Your task to perform on an android device: change timer sound Image 0: 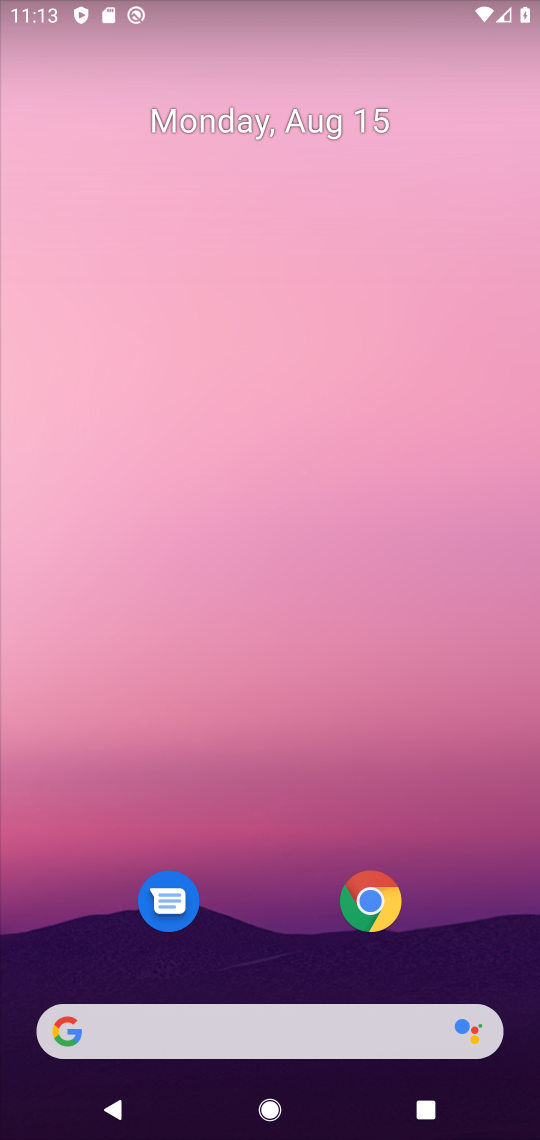
Step 0: drag from (419, 579) to (503, 3)
Your task to perform on an android device: change timer sound Image 1: 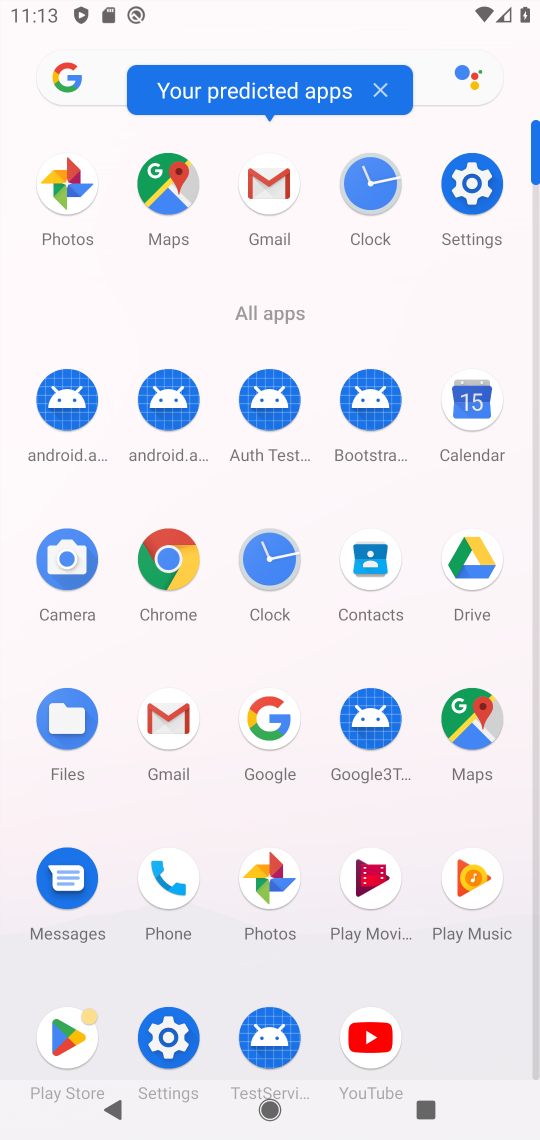
Step 1: click (366, 197)
Your task to perform on an android device: change timer sound Image 2: 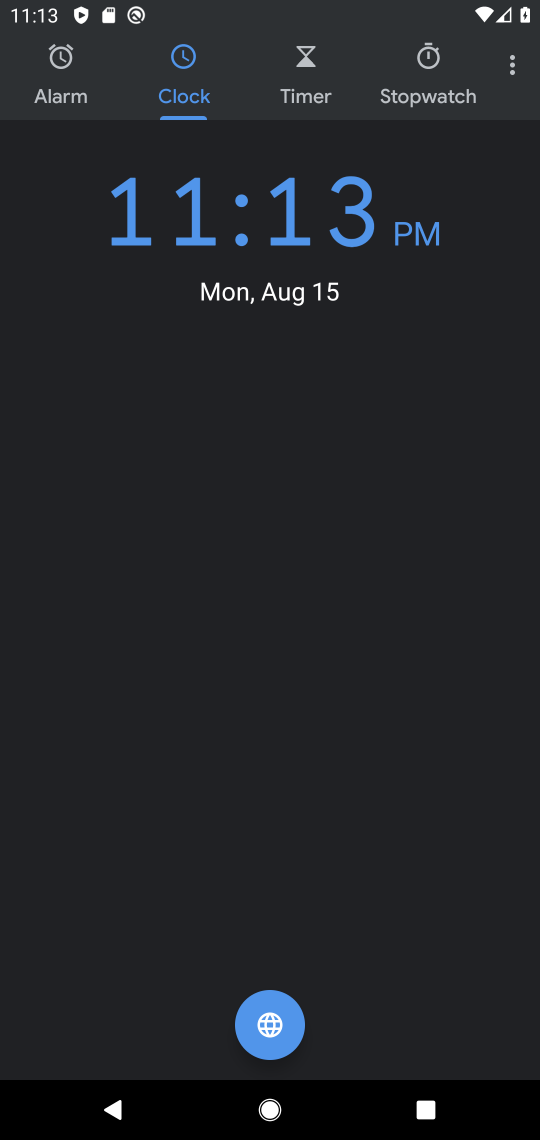
Step 2: click (515, 74)
Your task to perform on an android device: change timer sound Image 3: 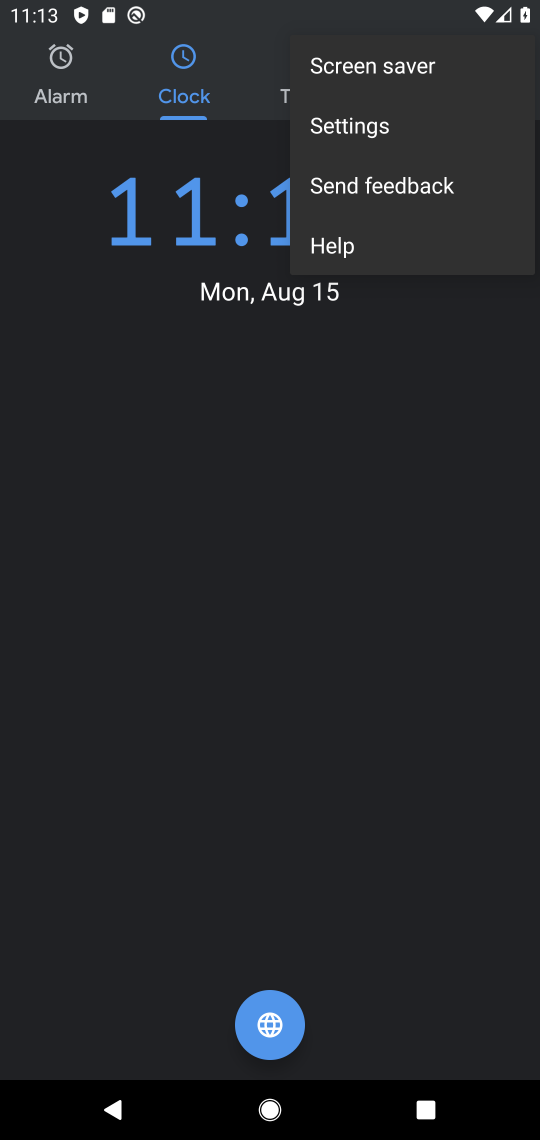
Step 3: click (325, 127)
Your task to perform on an android device: change timer sound Image 4: 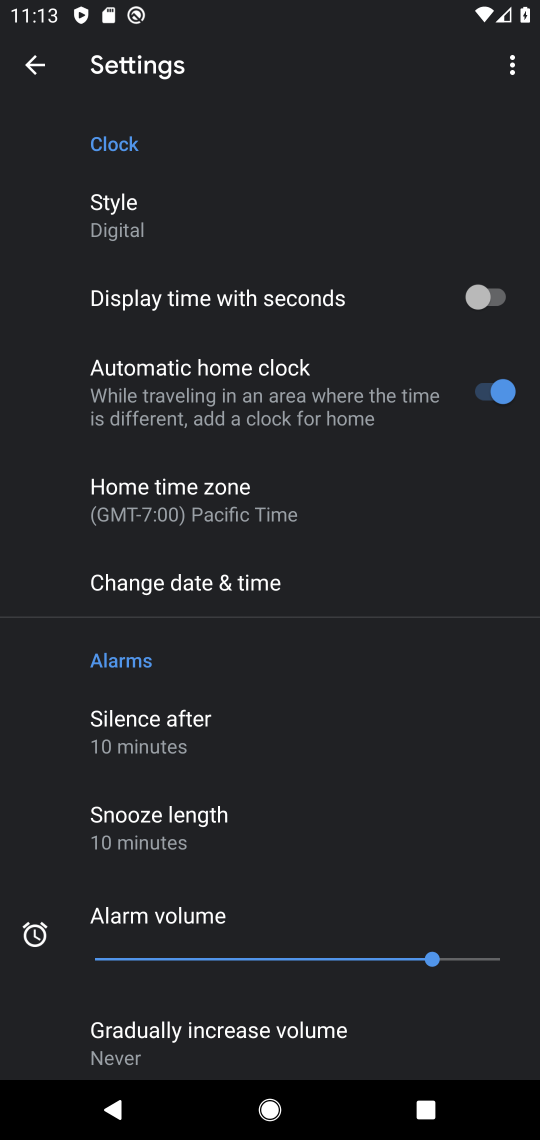
Step 4: drag from (393, 852) to (357, 213)
Your task to perform on an android device: change timer sound Image 5: 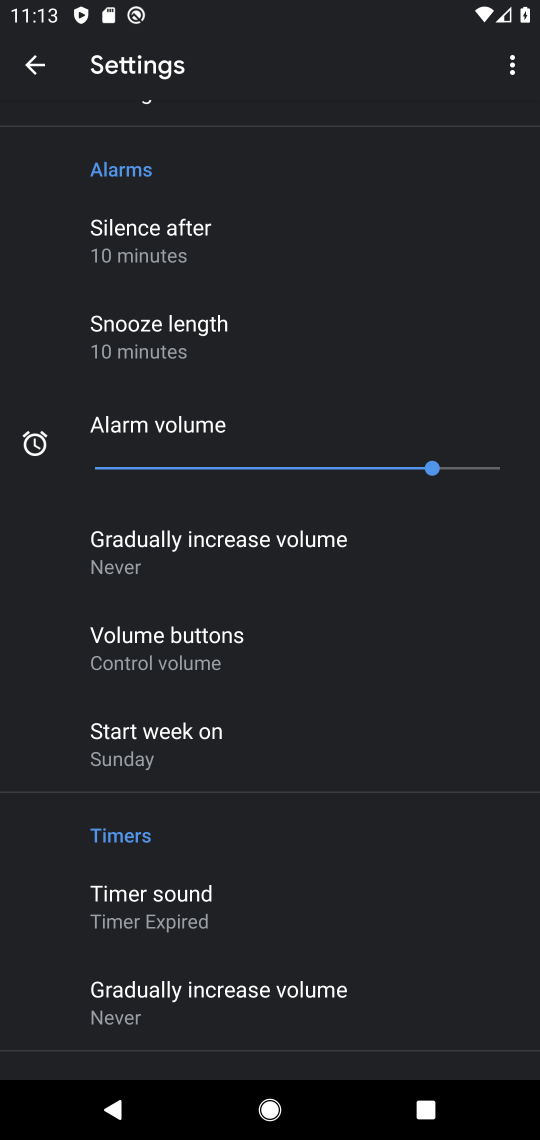
Step 5: click (158, 911)
Your task to perform on an android device: change timer sound Image 6: 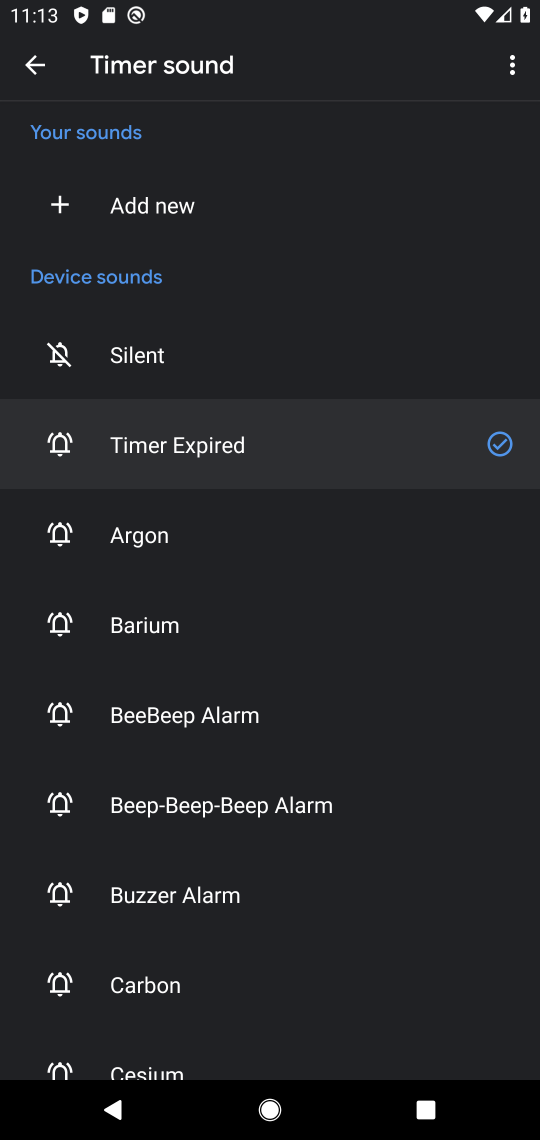
Step 6: click (139, 533)
Your task to perform on an android device: change timer sound Image 7: 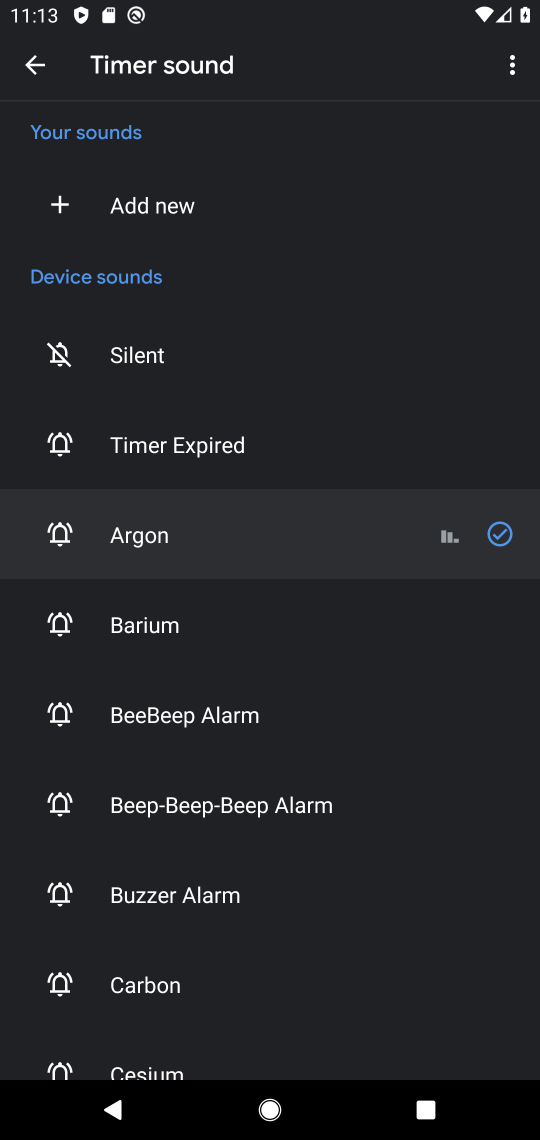
Step 7: task complete